Your task to perform on an android device: Show me productivity apps on the Play Store Image 0: 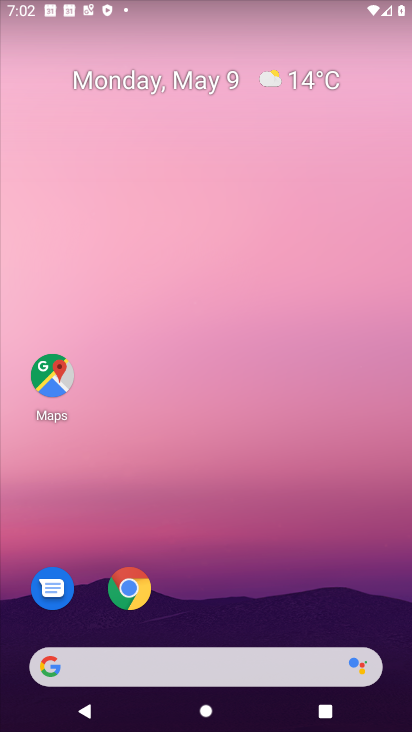
Step 0: drag from (351, 608) to (282, 28)
Your task to perform on an android device: Show me productivity apps on the Play Store Image 1: 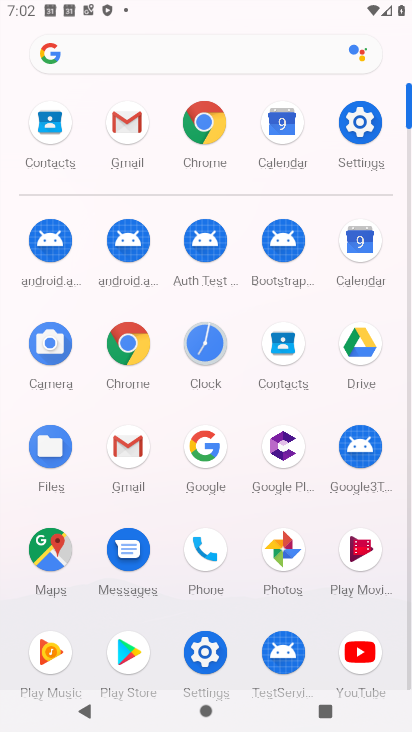
Step 1: click (130, 643)
Your task to perform on an android device: Show me productivity apps on the Play Store Image 2: 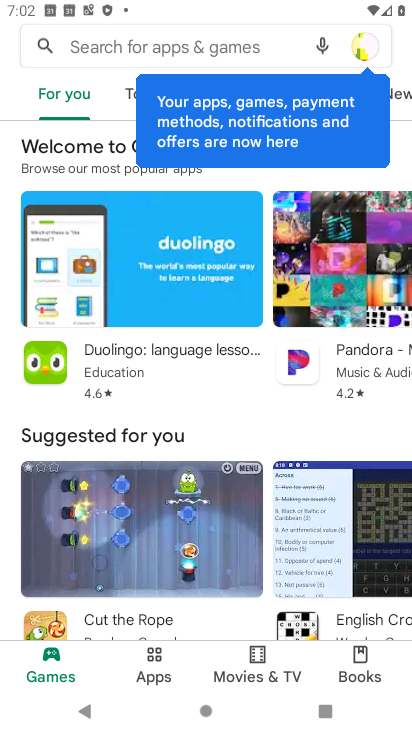
Step 2: task complete